Your task to perform on an android device: change notifications settings Image 0: 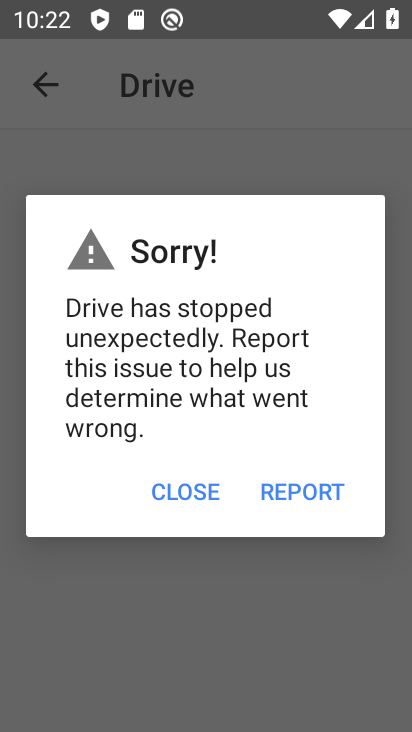
Step 0: press home button
Your task to perform on an android device: change notifications settings Image 1: 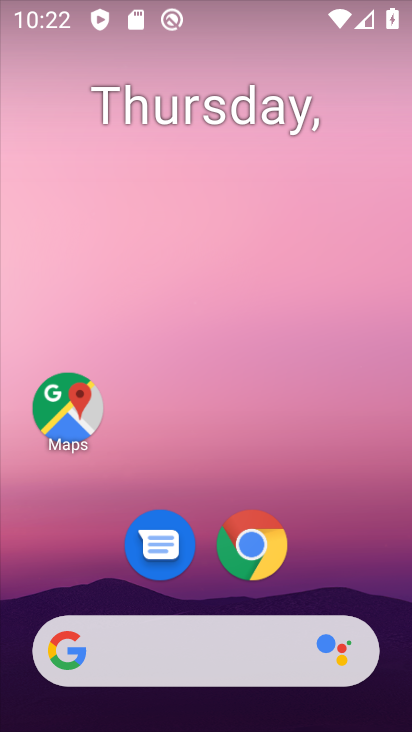
Step 1: drag from (341, 564) to (186, 135)
Your task to perform on an android device: change notifications settings Image 2: 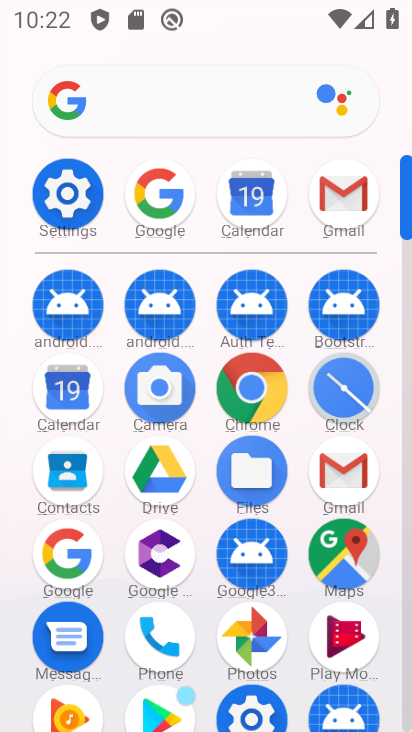
Step 2: click (65, 193)
Your task to perform on an android device: change notifications settings Image 3: 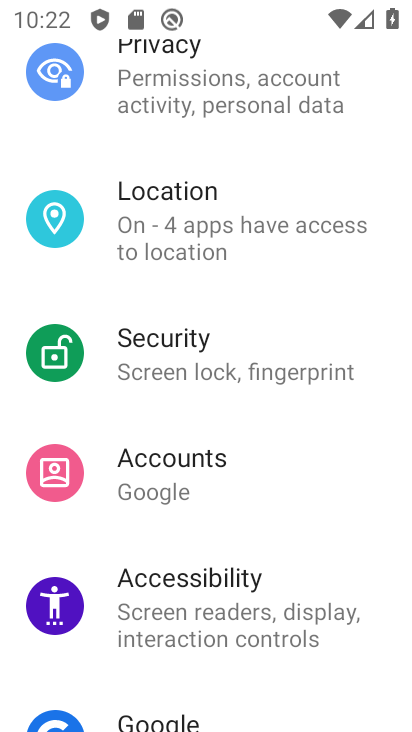
Step 3: drag from (233, 323) to (248, 446)
Your task to perform on an android device: change notifications settings Image 4: 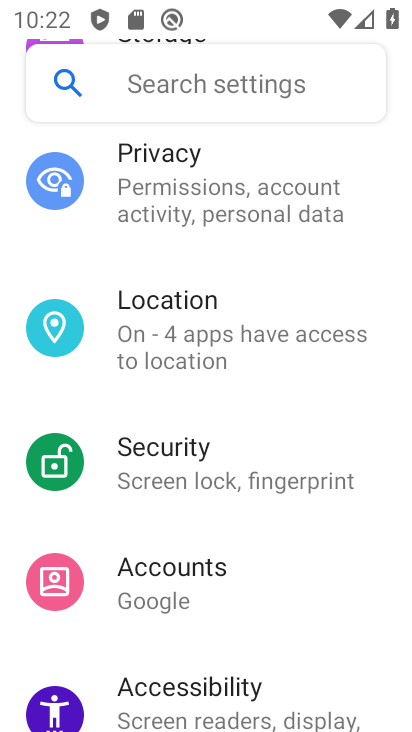
Step 4: drag from (264, 279) to (261, 406)
Your task to perform on an android device: change notifications settings Image 5: 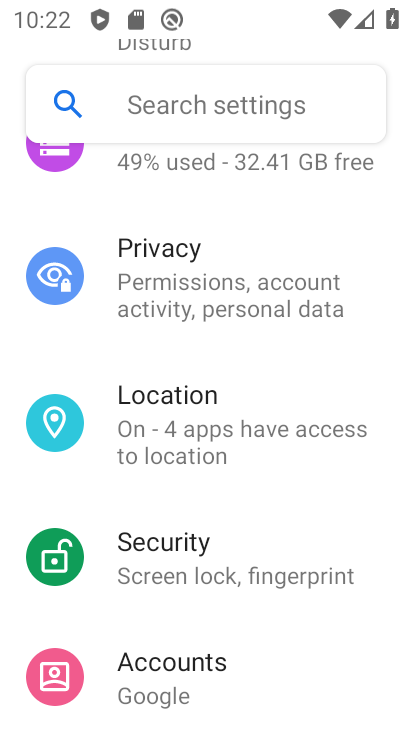
Step 5: drag from (232, 237) to (223, 374)
Your task to perform on an android device: change notifications settings Image 6: 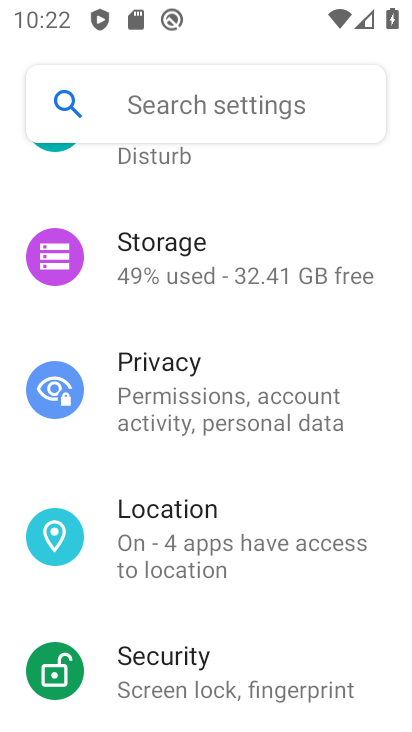
Step 6: drag from (209, 231) to (216, 353)
Your task to perform on an android device: change notifications settings Image 7: 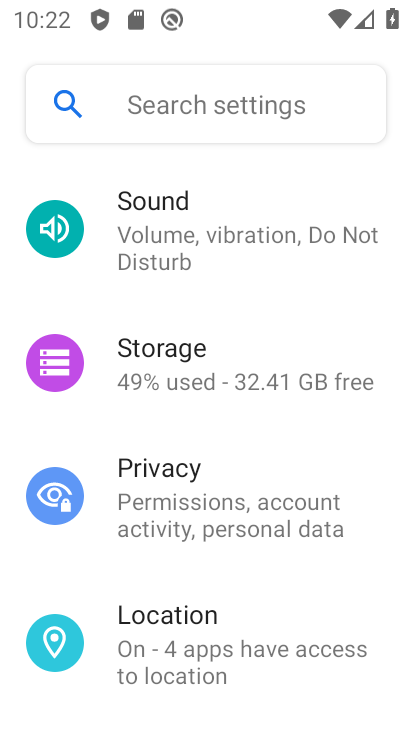
Step 7: drag from (215, 200) to (206, 342)
Your task to perform on an android device: change notifications settings Image 8: 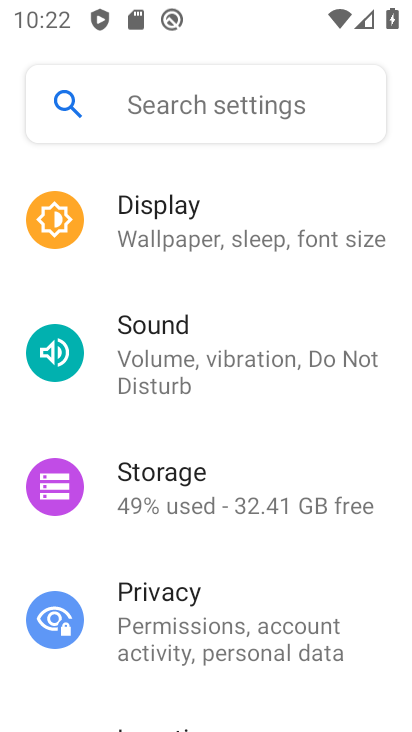
Step 8: drag from (197, 169) to (192, 315)
Your task to perform on an android device: change notifications settings Image 9: 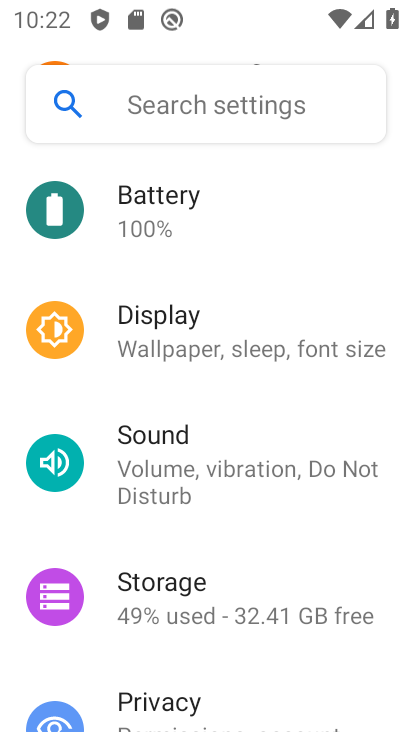
Step 9: drag from (247, 189) to (204, 319)
Your task to perform on an android device: change notifications settings Image 10: 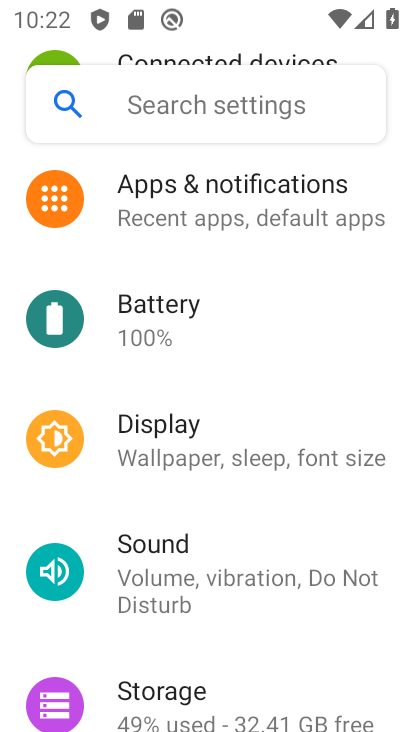
Step 10: click (194, 192)
Your task to perform on an android device: change notifications settings Image 11: 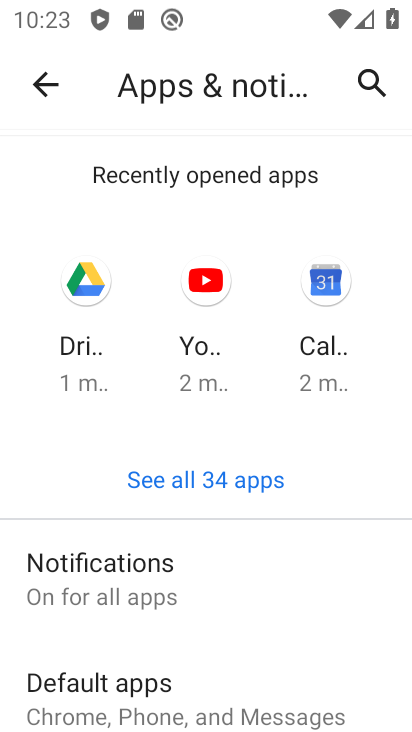
Step 11: click (131, 566)
Your task to perform on an android device: change notifications settings Image 12: 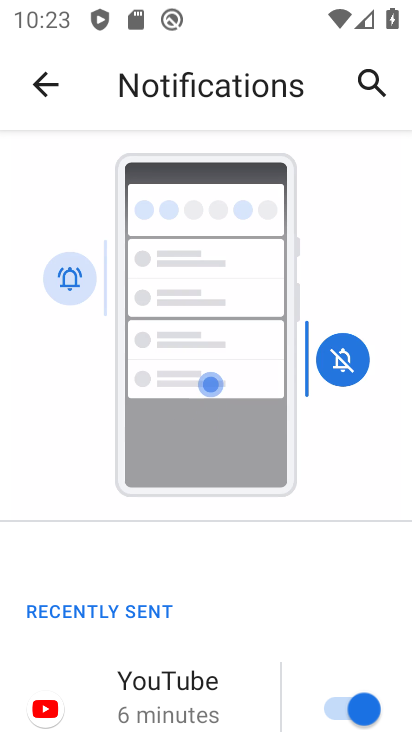
Step 12: drag from (132, 545) to (256, 227)
Your task to perform on an android device: change notifications settings Image 13: 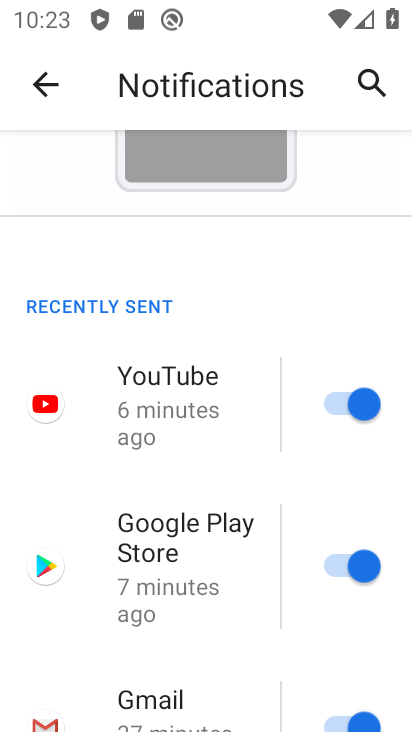
Step 13: drag from (177, 645) to (256, 408)
Your task to perform on an android device: change notifications settings Image 14: 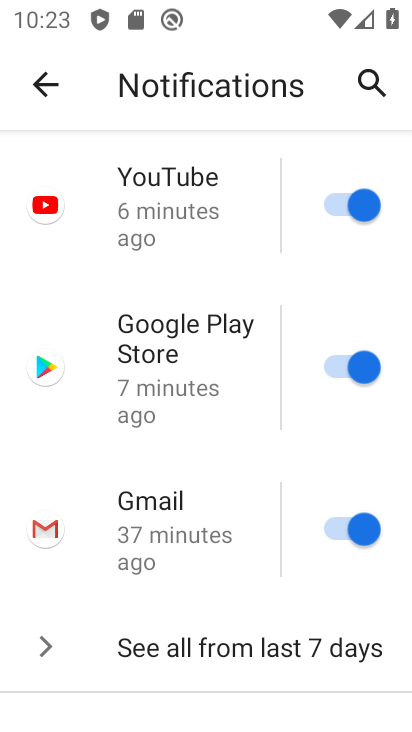
Step 14: drag from (161, 617) to (264, 472)
Your task to perform on an android device: change notifications settings Image 15: 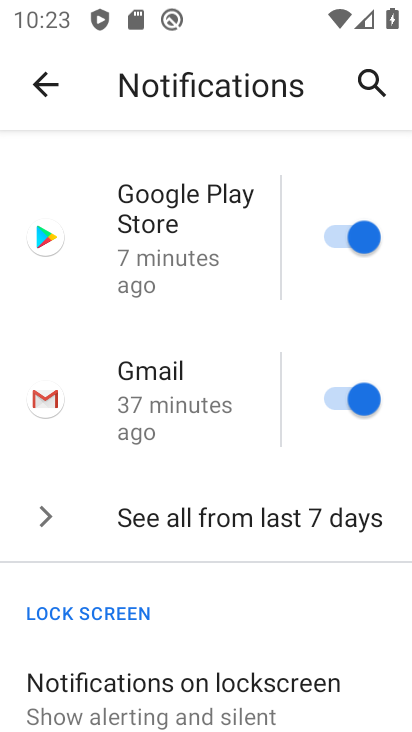
Step 15: drag from (185, 653) to (251, 482)
Your task to perform on an android device: change notifications settings Image 16: 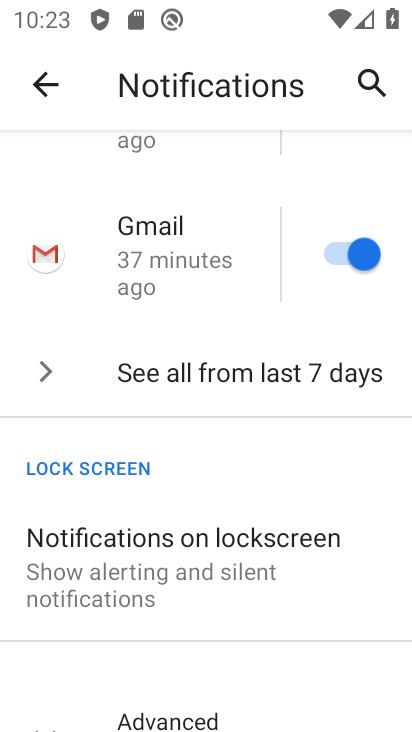
Step 16: drag from (173, 675) to (252, 499)
Your task to perform on an android device: change notifications settings Image 17: 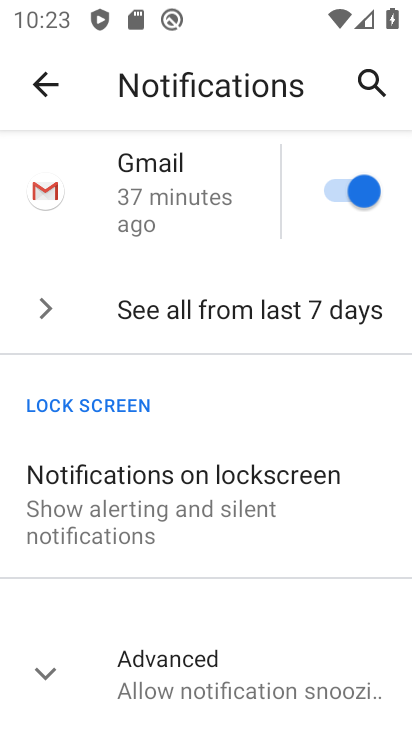
Step 17: click (192, 655)
Your task to perform on an android device: change notifications settings Image 18: 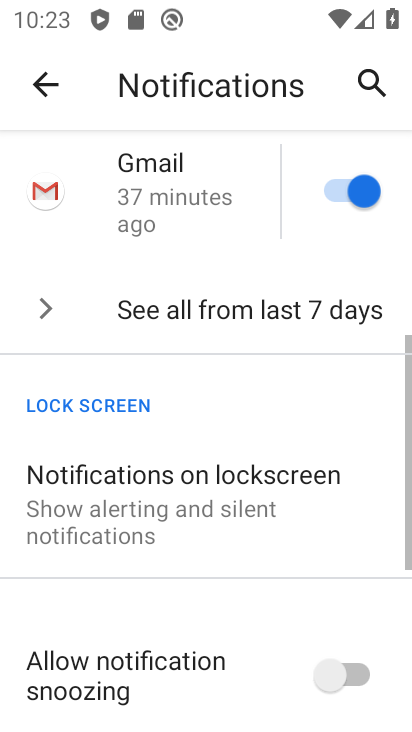
Step 18: drag from (192, 713) to (238, 558)
Your task to perform on an android device: change notifications settings Image 19: 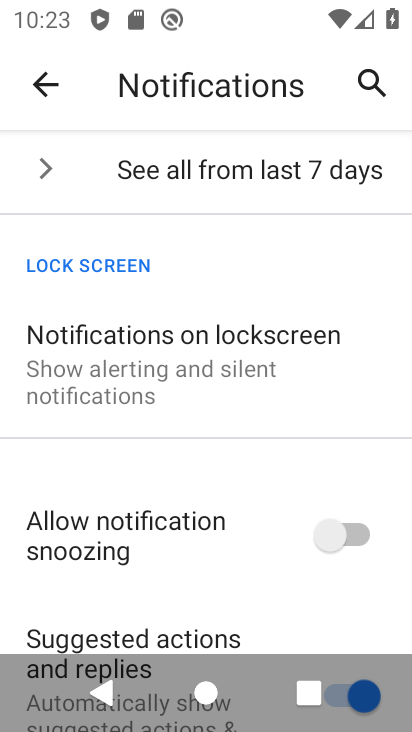
Step 19: drag from (209, 590) to (263, 445)
Your task to perform on an android device: change notifications settings Image 20: 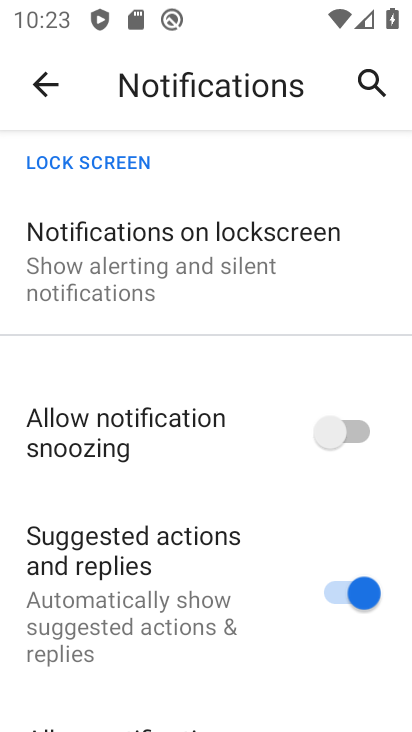
Step 20: drag from (226, 605) to (316, 439)
Your task to perform on an android device: change notifications settings Image 21: 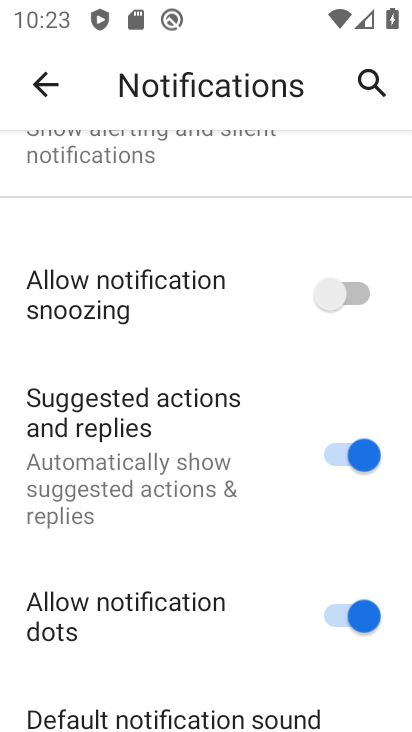
Step 21: drag from (142, 551) to (215, 441)
Your task to perform on an android device: change notifications settings Image 22: 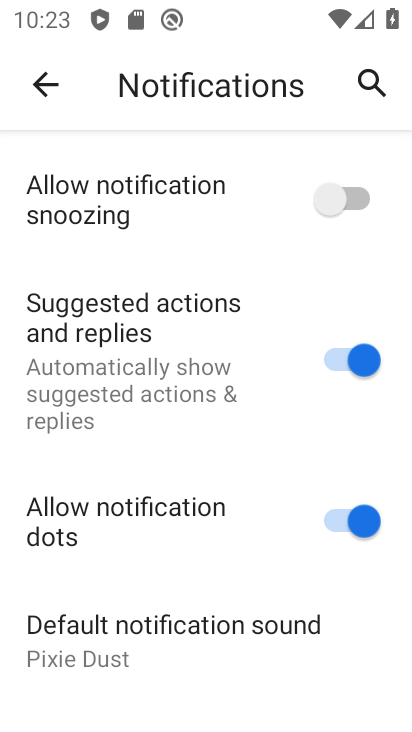
Step 22: click (374, 527)
Your task to perform on an android device: change notifications settings Image 23: 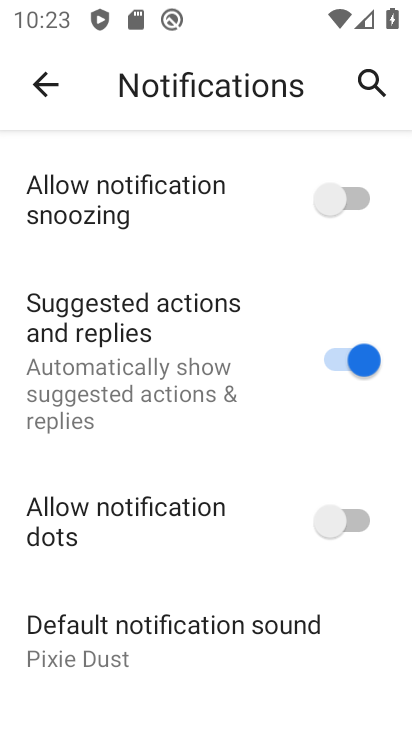
Step 23: task complete